Your task to perform on an android device: Open calendar and show me the second week of next month Image 0: 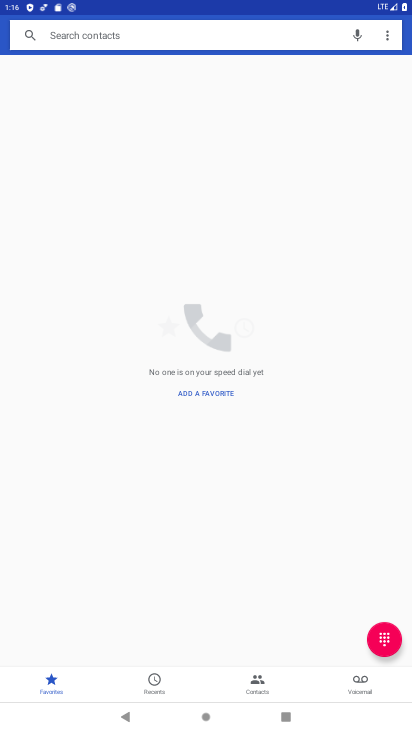
Step 0: press home button
Your task to perform on an android device: Open calendar and show me the second week of next month Image 1: 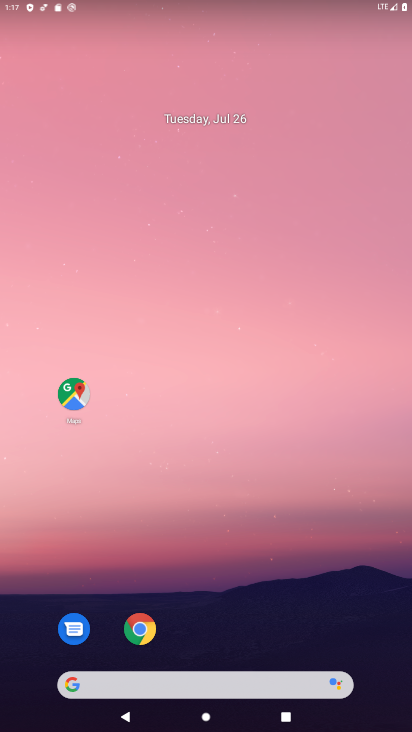
Step 1: drag from (395, 708) to (369, 409)
Your task to perform on an android device: Open calendar and show me the second week of next month Image 2: 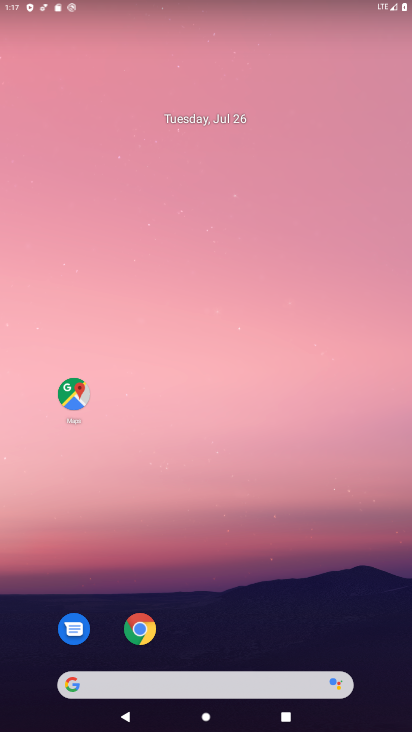
Step 2: drag from (384, 702) to (318, 55)
Your task to perform on an android device: Open calendar and show me the second week of next month Image 3: 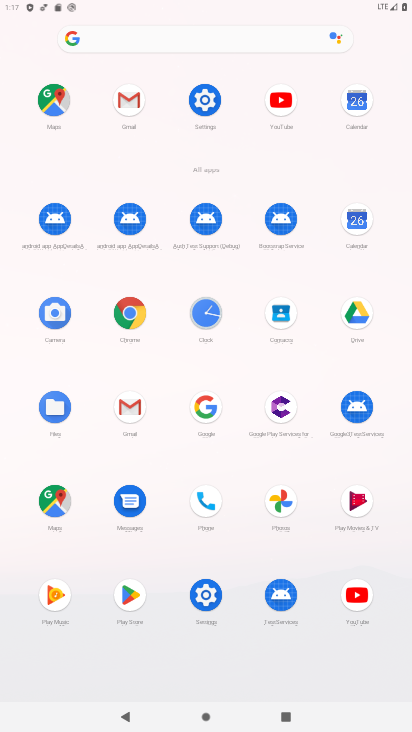
Step 3: click (352, 219)
Your task to perform on an android device: Open calendar and show me the second week of next month Image 4: 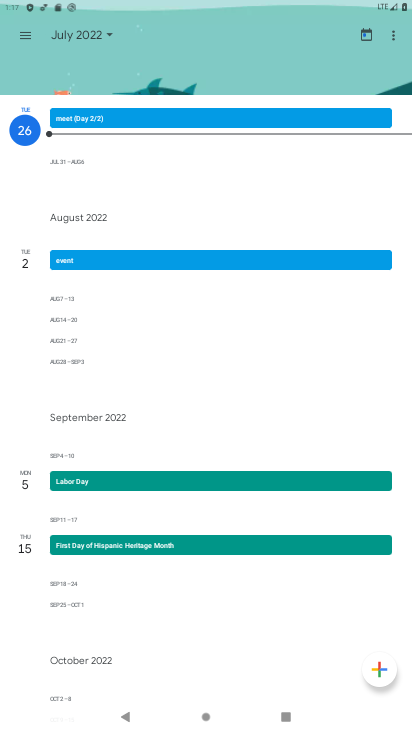
Step 4: click (104, 30)
Your task to perform on an android device: Open calendar and show me the second week of next month Image 5: 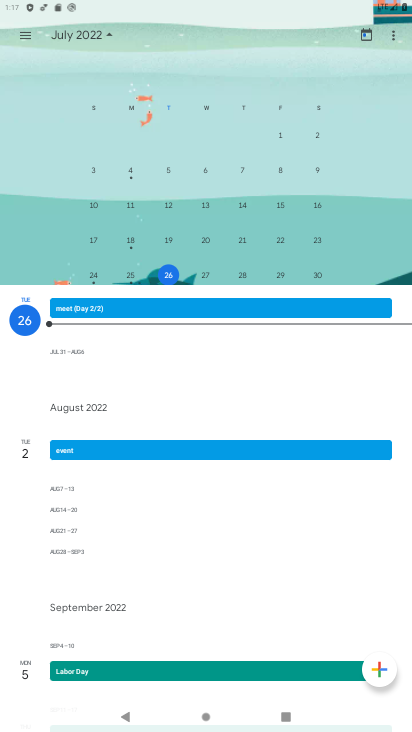
Step 5: drag from (393, 188) to (69, 170)
Your task to perform on an android device: Open calendar and show me the second week of next month Image 6: 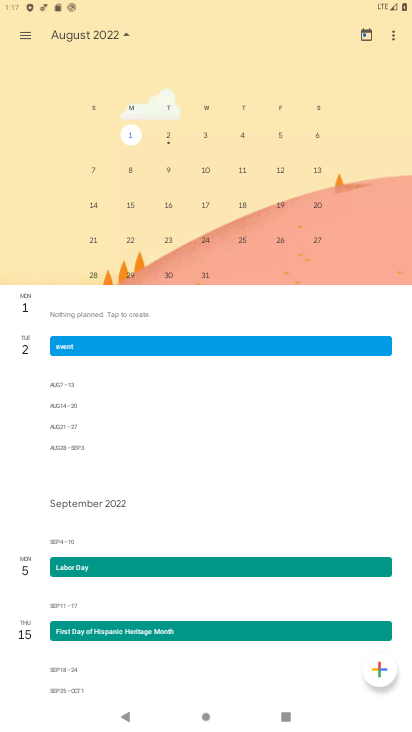
Step 6: click (204, 170)
Your task to perform on an android device: Open calendar and show me the second week of next month Image 7: 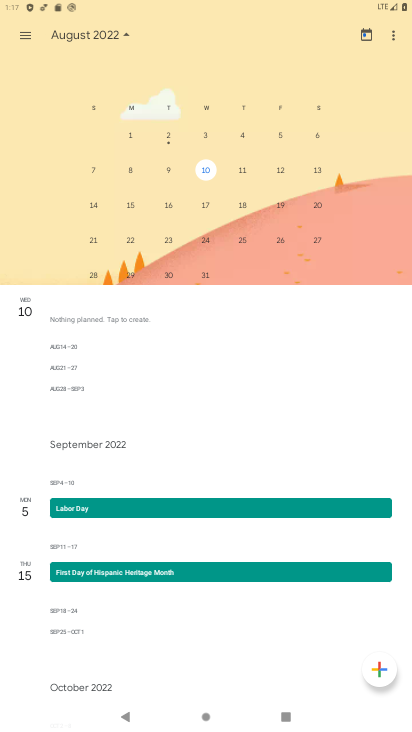
Step 7: click (28, 43)
Your task to perform on an android device: Open calendar and show me the second week of next month Image 8: 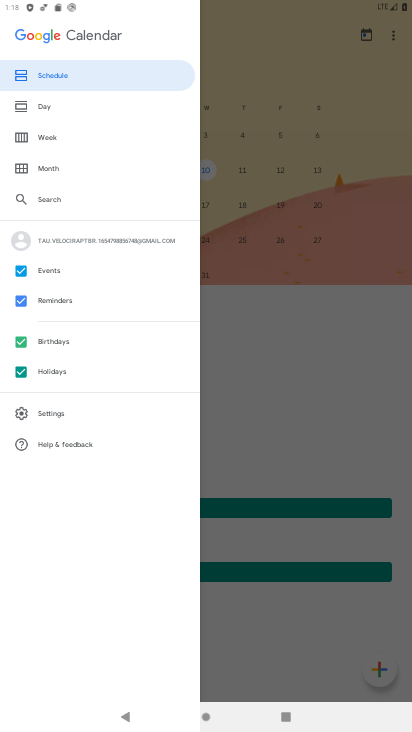
Step 8: click (47, 138)
Your task to perform on an android device: Open calendar and show me the second week of next month Image 9: 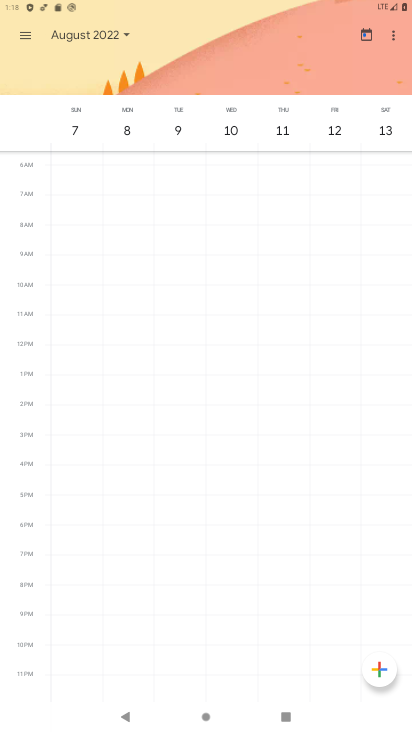
Step 9: task complete